Your task to perform on an android device: What's the weather like in Tokyo? Image 0: 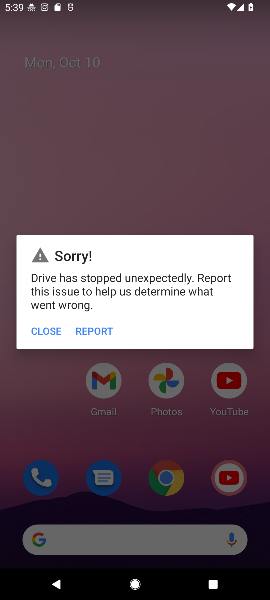
Step 0: press home button
Your task to perform on an android device: What's the weather like in Tokyo? Image 1: 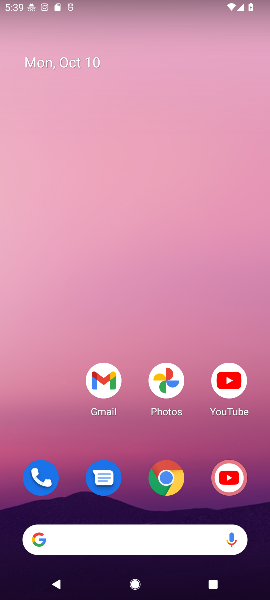
Step 1: click (161, 482)
Your task to perform on an android device: What's the weather like in Tokyo? Image 2: 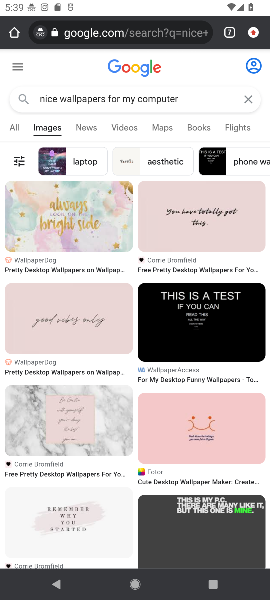
Step 2: click (121, 35)
Your task to perform on an android device: What's the weather like in Tokyo? Image 3: 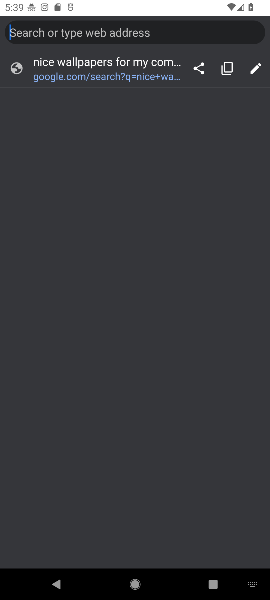
Step 3: type "weather like in Tokyo?"
Your task to perform on an android device: What's the weather like in Tokyo? Image 4: 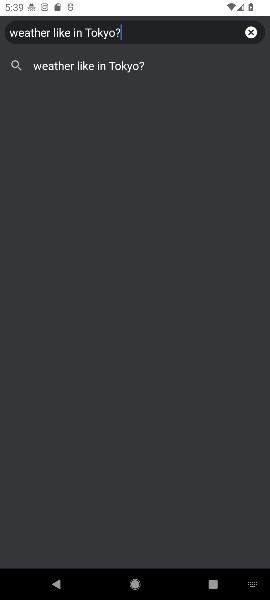
Step 4: click (112, 65)
Your task to perform on an android device: What's the weather like in Tokyo? Image 5: 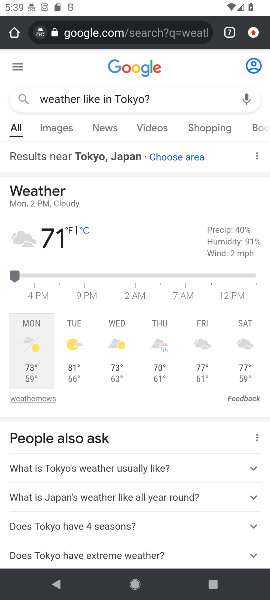
Step 5: task complete